Your task to perform on an android device: Go to Yahoo.com Image 0: 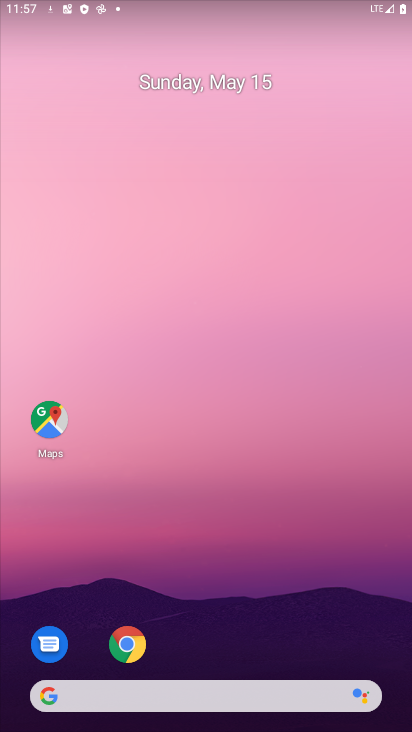
Step 0: drag from (224, 698) to (406, 307)
Your task to perform on an android device: Go to Yahoo.com Image 1: 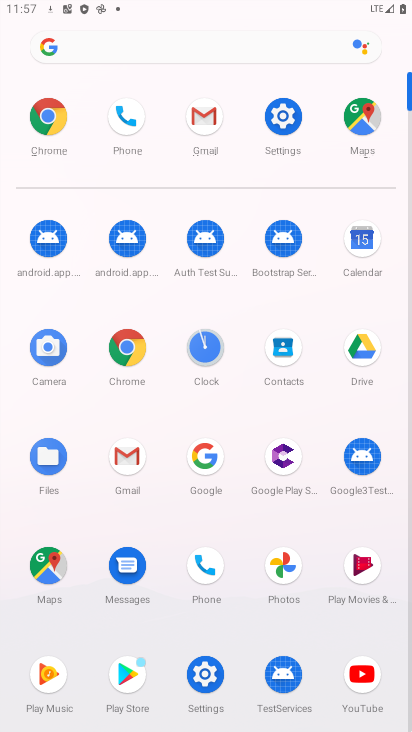
Step 1: click (66, 112)
Your task to perform on an android device: Go to Yahoo.com Image 2: 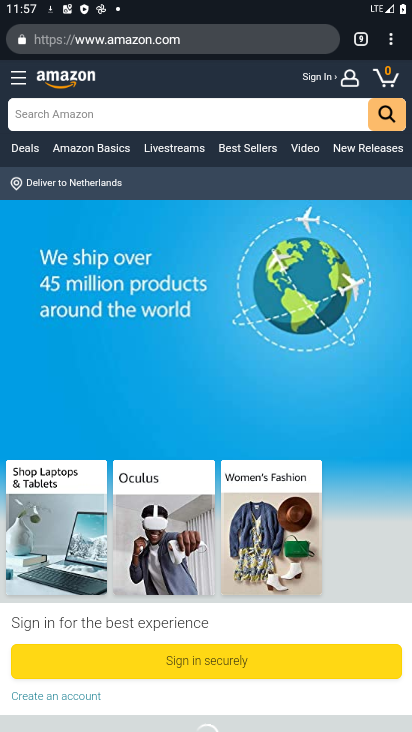
Step 2: click (138, 43)
Your task to perform on an android device: Go to Yahoo.com Image 3: 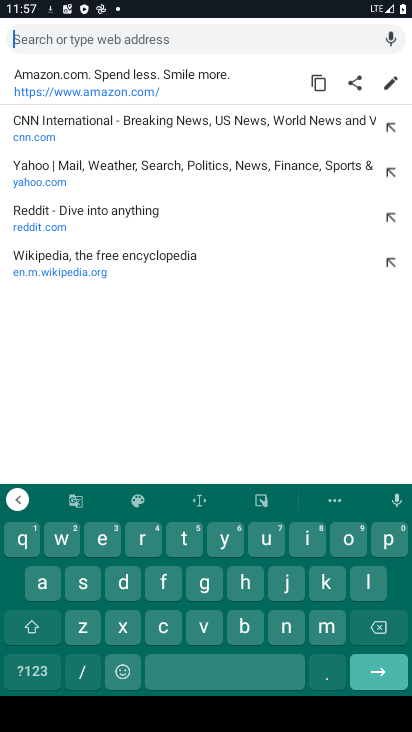
Step 3: click (225, 537)
Your task to perform on an android device: Go to Yahoo.com Image 4: 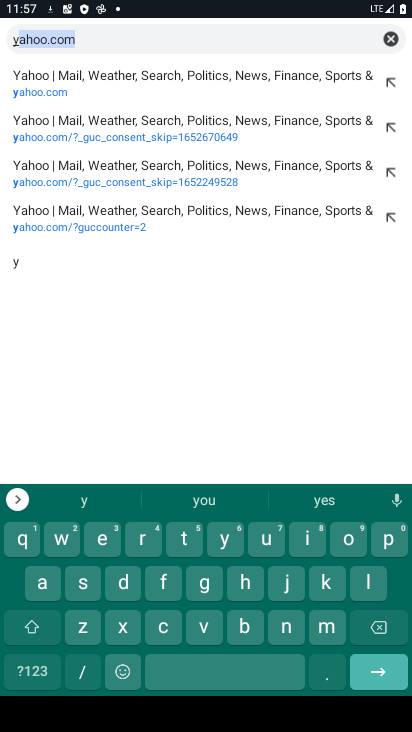
Step 4: click (103, 43)
Your task to perform on an android device: Go to Yahoo.com Image 5: 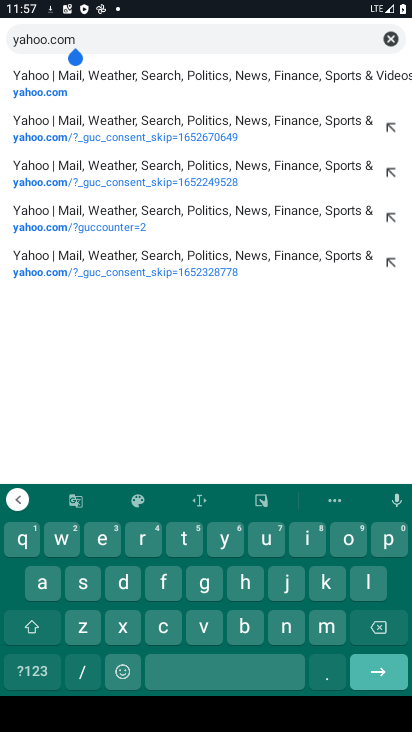
Step 5: click (374, 671)
Your task to perform on an android device: Go to Yahoo.com Image 6: 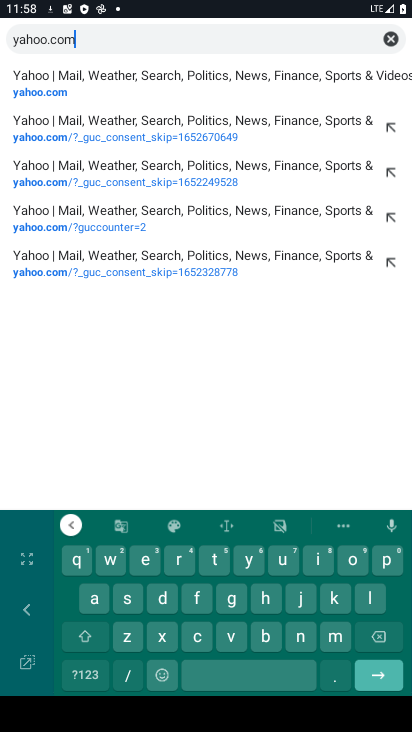
Step 6: click (391, 676)
Your task to perform on an android device: Go to Yahoo.com Image 7: 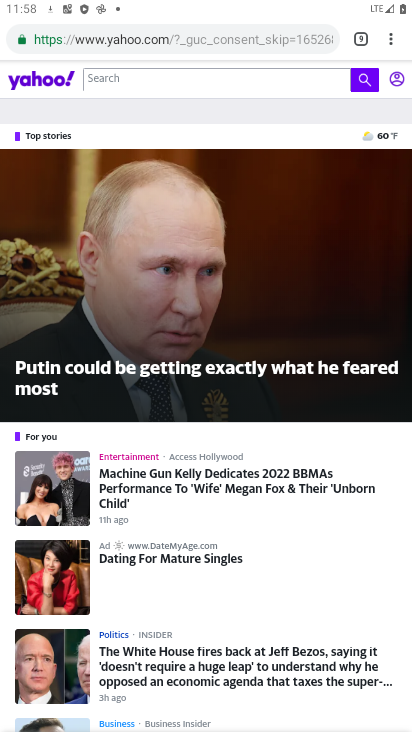
Step 7: task complete